Your task to perform on an android device: Go to Yahoo.com Image 0: 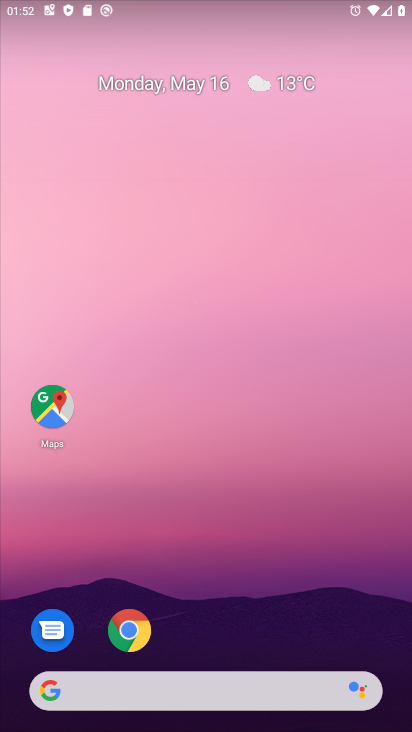
Step 0: click (184, 687)
Your task to perform on an android device: Go to Yahoo.com Image 1: 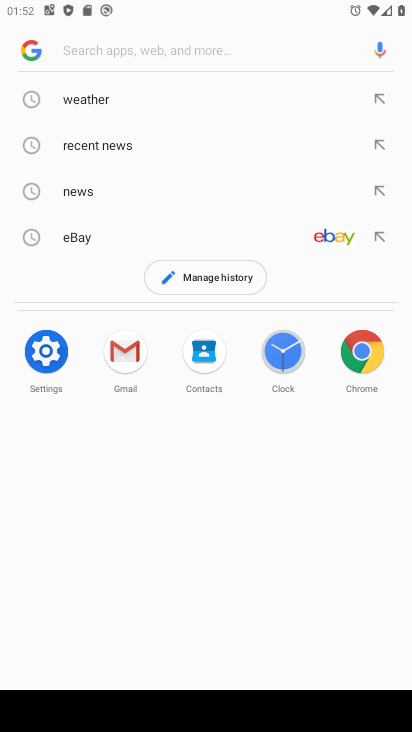
Step 1: click (355, 341)
Your task to perform on an android device: Go to Yahoo.com Image 2: 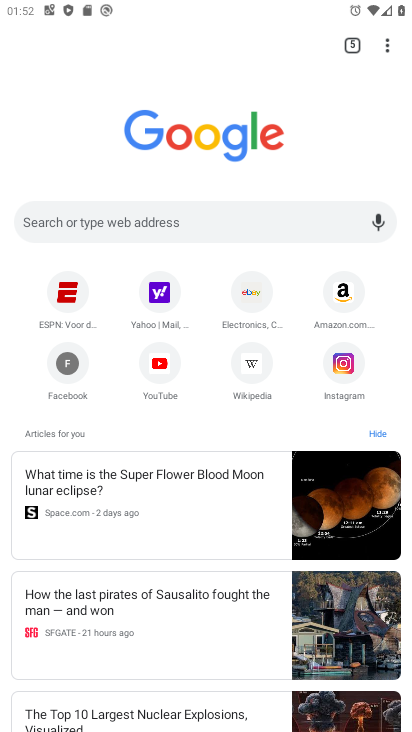
Step 2: click (157, 291)
Your task to perform on an android device: Go to Yahoo.com Image 3: 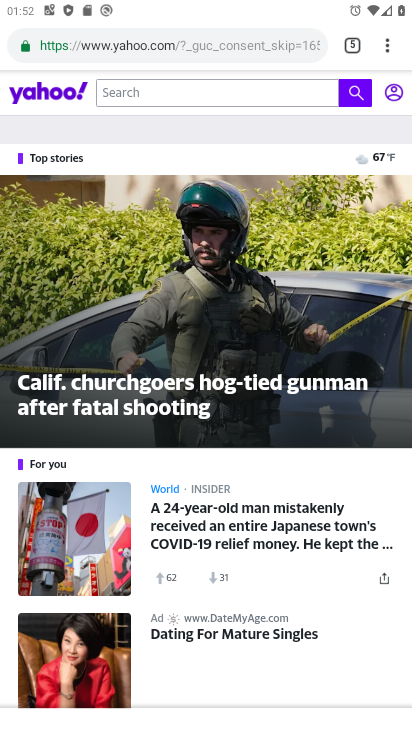
Step 3: task complete